Your task to perform on an android device: Open the stopwatch Image 0: 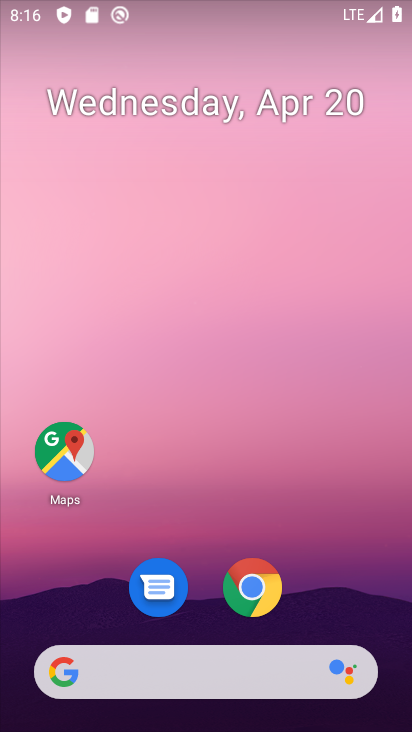
Step 0: drag from (342, 591) to (357, 136)
Your task to perform on an android device: Open the stopwatch Image 1: 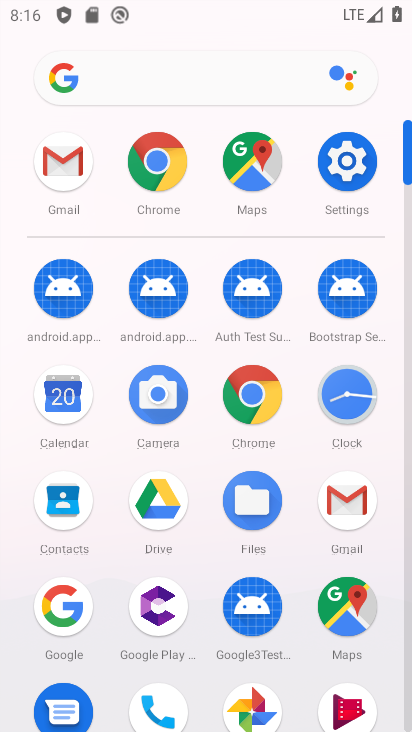
Step 1: click (357, 392)
Your task to perform on an android device: Open the stopwatch Image 2: 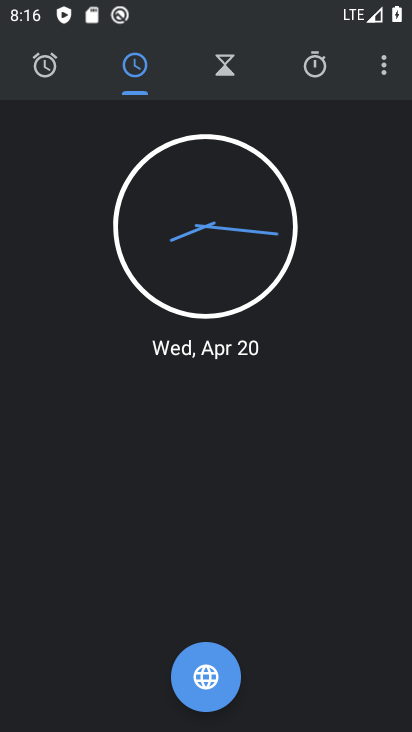
Step 2: click (313, 68)
Your task to perform on an android device: Open the stopwatch Image 3: 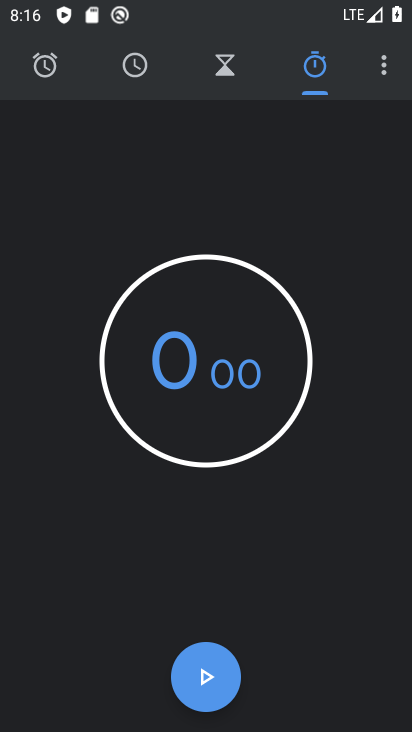
Step 3: task complete